Your task to perform on an android device: Go to location settings Image 0: 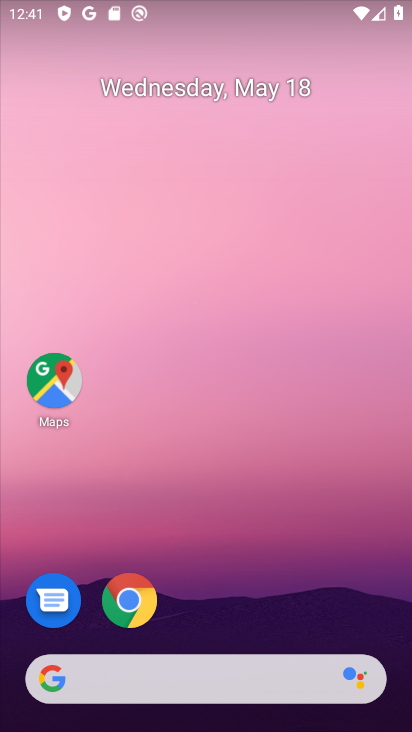
Step 0: drag from (170, 637) to (207, 355)
Your task to perform on an android device: Go to location settings Image 1: 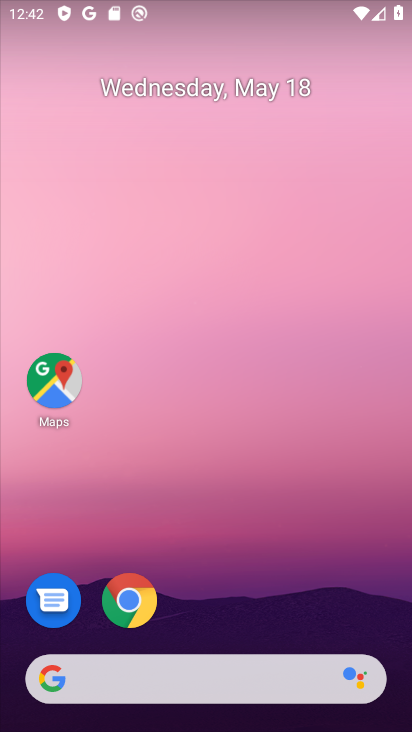
Step 1: drag from (206, 631) to (239, 229)
Your task to perform on an android device: Go to location settings Image 2: 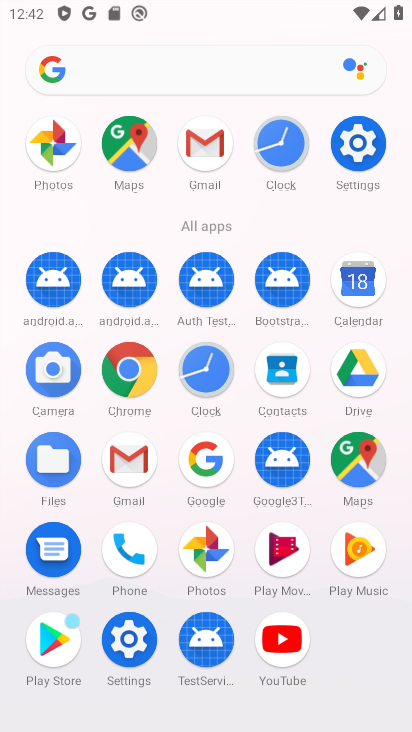
Step 2: click (356, 142)
Your task to perform on an android device: Go to location settings Image 3: 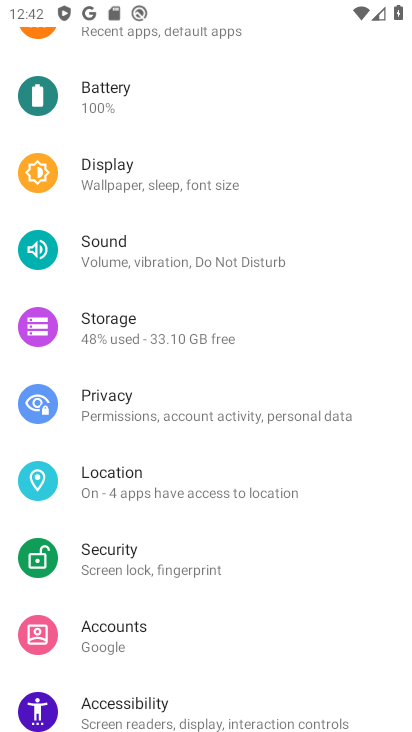
Step 3: click (140, 478)
Your task to perform on an android device: Go to location settings Image 4: 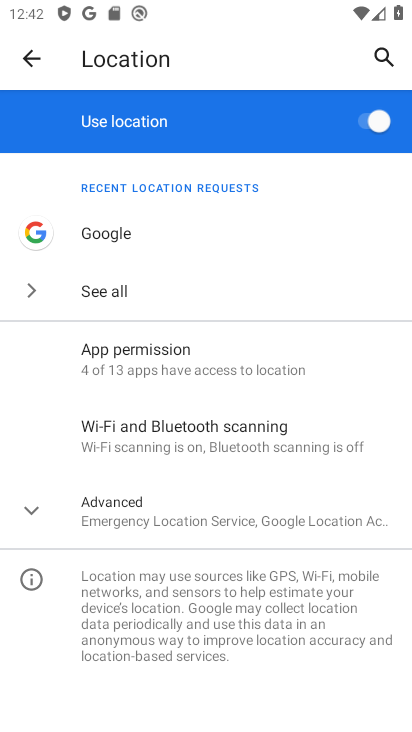
Step 4: task complete